Your task to perform on an android device: Open Android settings Image 0: 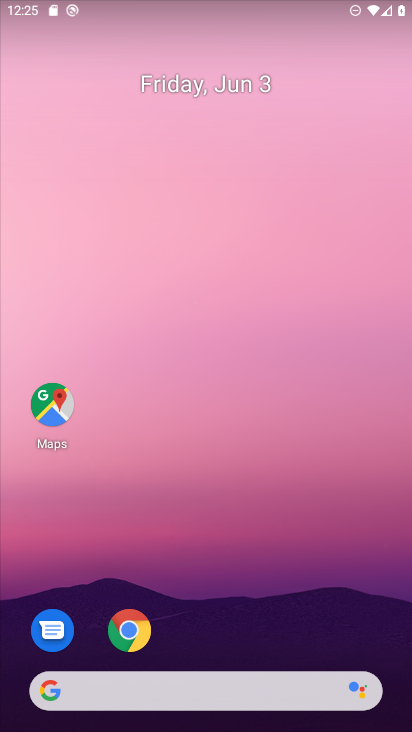
Step 0: drag from (171, 288) to (158, 229)
Your task to perform on an android device: Open Android settings Image 1: 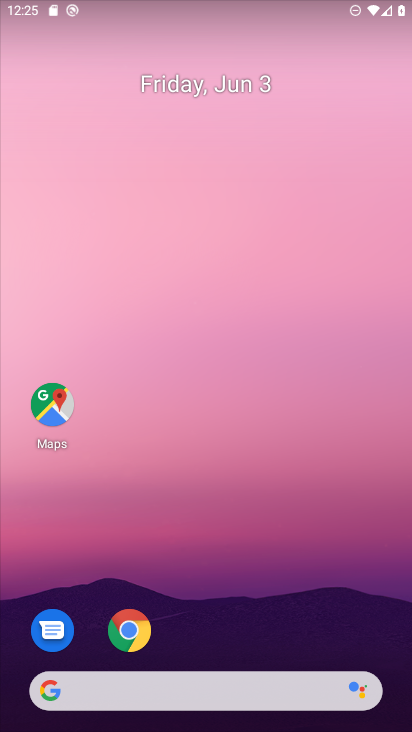
Step 1: drag from (238, 538) to (209, 133)
Your task to perform on an android device: Open Android settings Image 2: 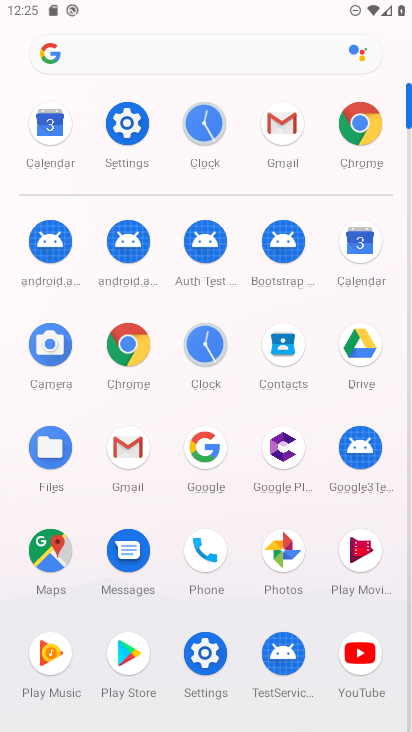
Step 2: click (131, 118)
Your task to perform on an android device: Open Android settings Image 3: 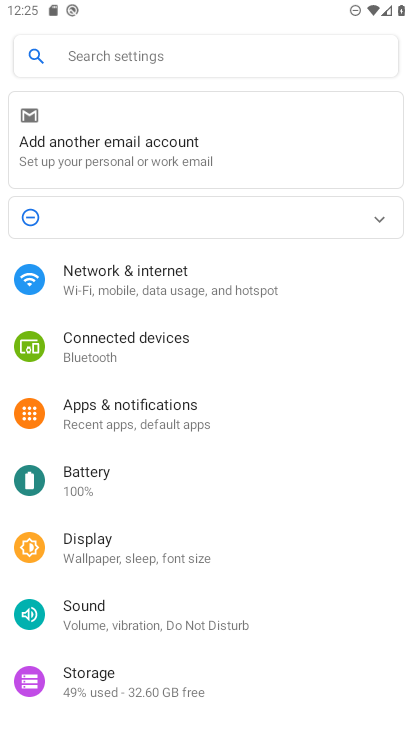
Step 3: task complete